Your task to perform on an android device: change the clock display to digital Image 0: 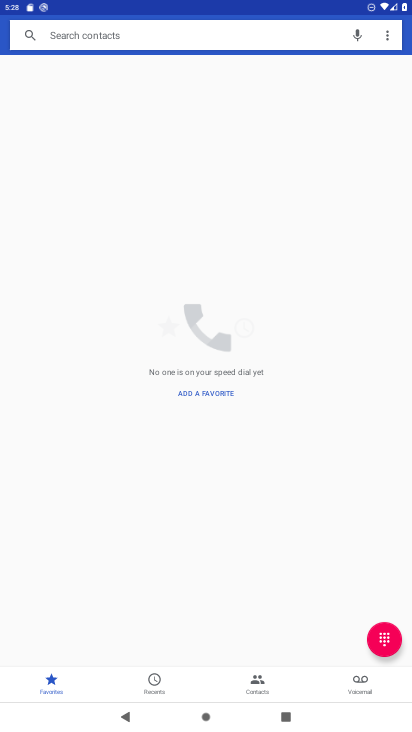
Step 0: press home button
Your task to perform on an android device: change the clock display to digital Image 1: 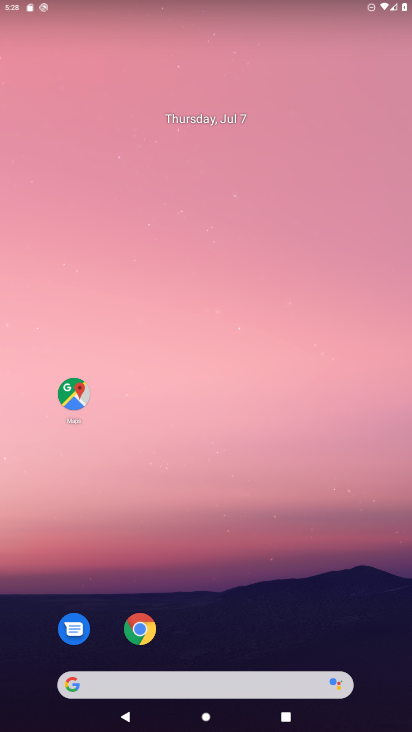
Step 1: drag from (184, 579) to (131, 9)
Your task to perform on an android device: change the clock display to digital Image 2: 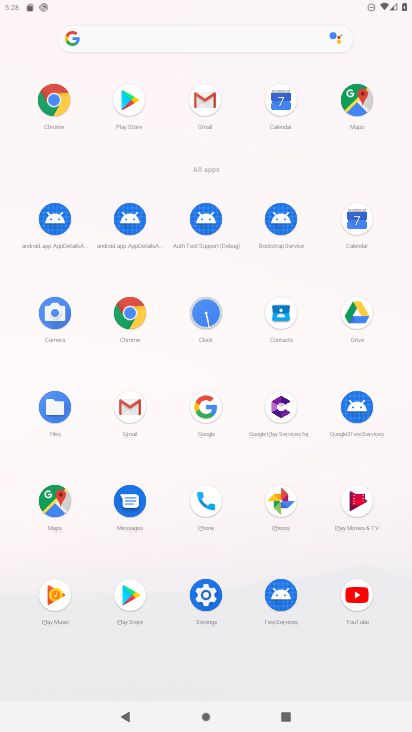
Step 2: click (207, 305)
Your task to perform on an android device: change the clock display to digital Image 3: 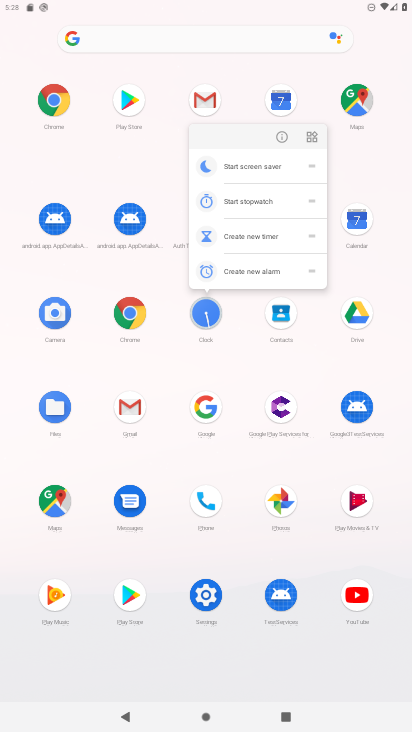
Step 3: click (207, 305)
Your task to perform on an android device: change the clock display to digital Image 4: 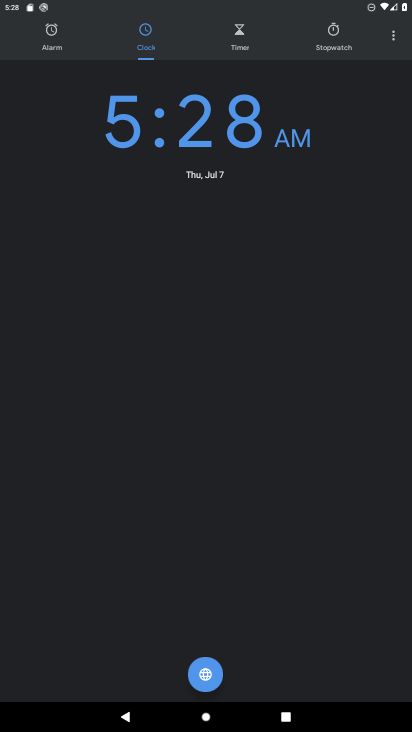
Step 4: click (391, 41)
Your task to perform on an android device: change the clock display to digital Image 5: 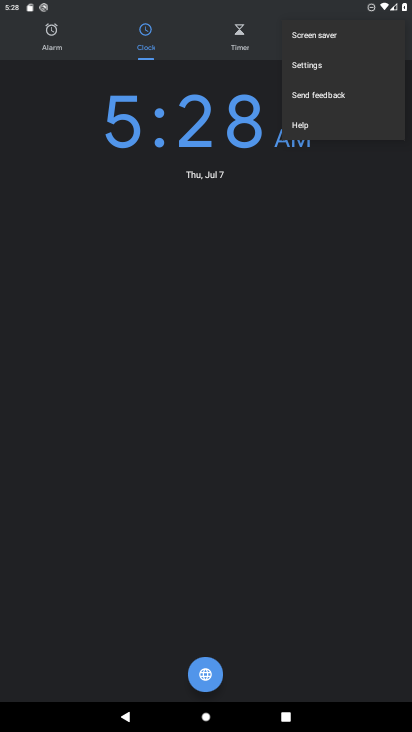
Step 5: click (315, 58)
Your task to perform on an android device: change the clock display to digital Image 6: 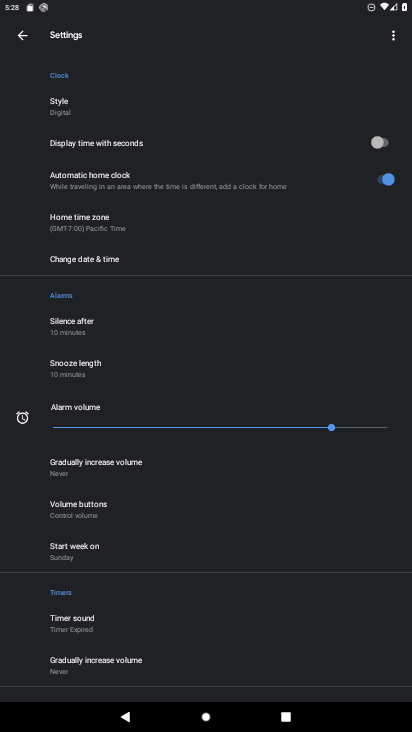
Step 6: click (68, 110)
Your task to perform on an android device: change the clock display to digital Image 7: 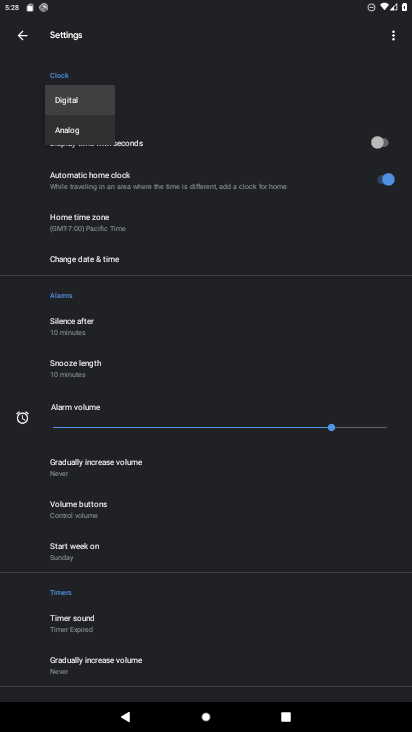
Step 7: click (73, 93)
Your task to perform on an android device: change the clock display to digital Image 8: 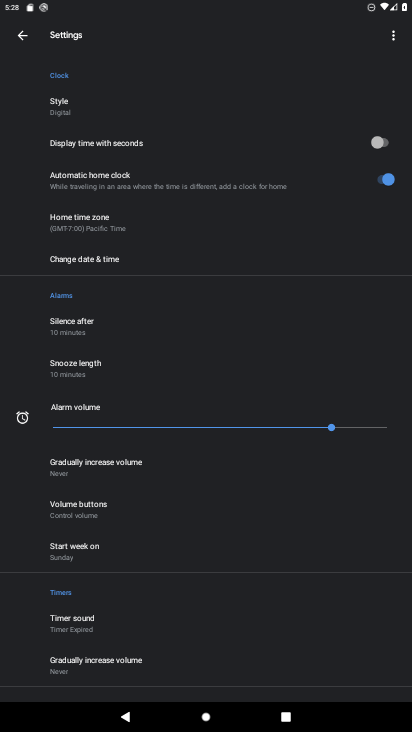
Step 8: task complete